Your task to perform on an android device: check storage Image 0: 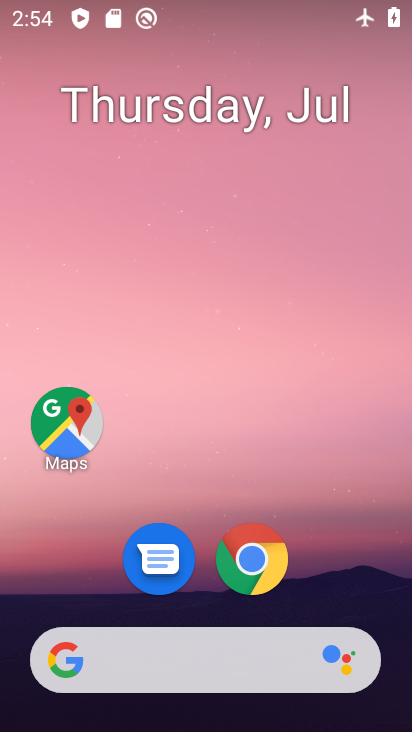
Step 0: drag from (223, 623) to (231, 70)
Your task to perform on an android device: check storage Image 1: 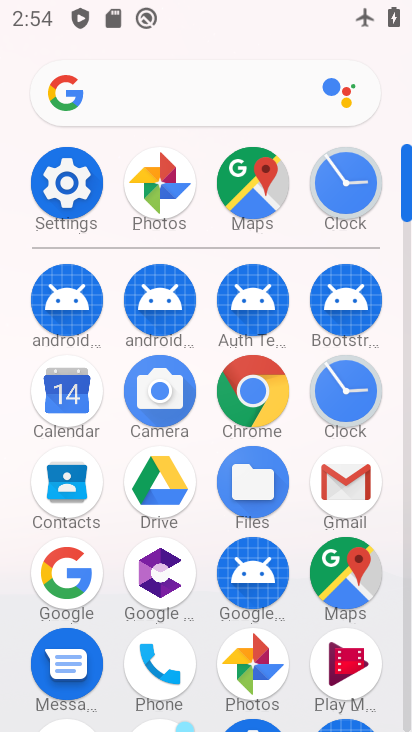
Step 1: click (78, 192)
Your task to perform on an android device: check storage Image 2: 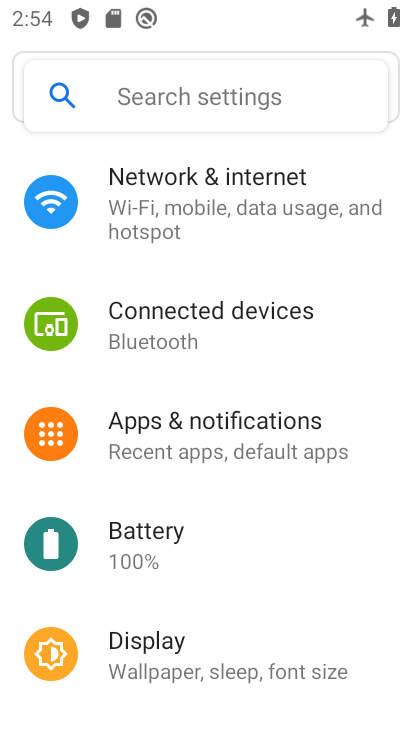
Step 2: drag from (177, 515) to (197, 260)
Your task to perform on an android device: check storage Image 3: 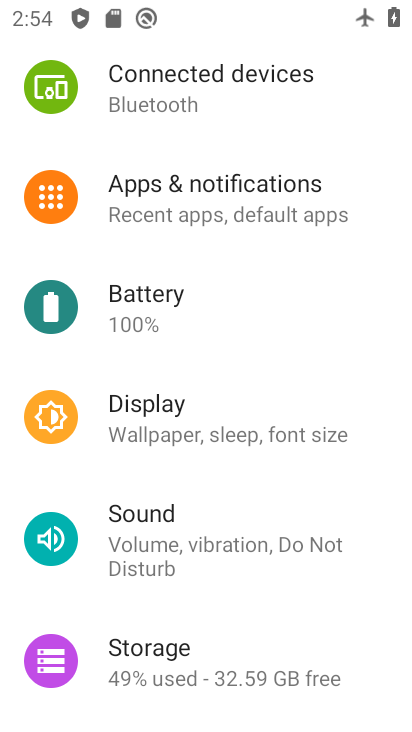
Step 3: drag from (187, 546) to (197, 263)
Your task to perform on an android device: check storage Image 4: 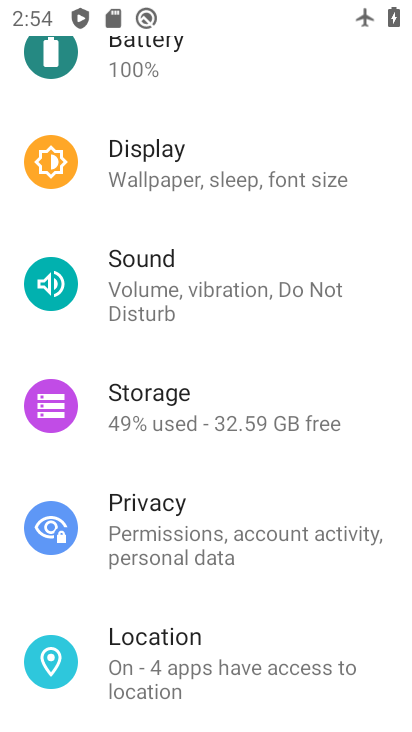
Step 4: click (201, 660)
Your task to perform on an android device: check storage Image 5: 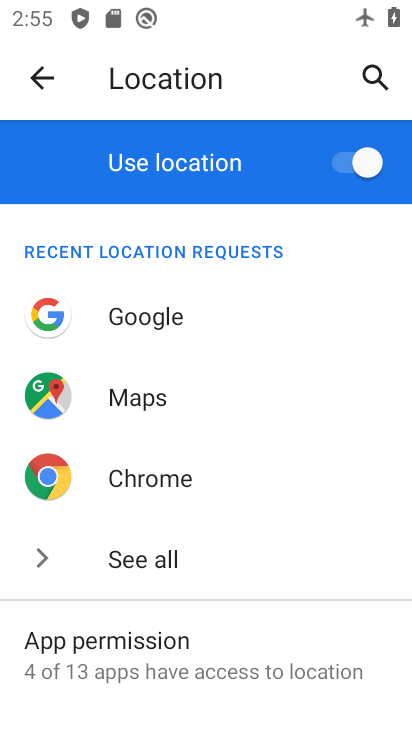
Step 5: task complete